Your task to perform on an android device: Open Google Image 0: 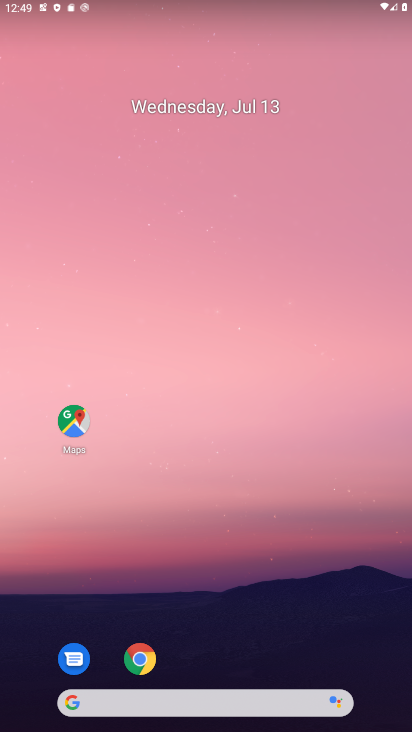
Step 0: drag from (274, 238) to (299, 136)
Your task to perform on an android device: Open Google Image 1: 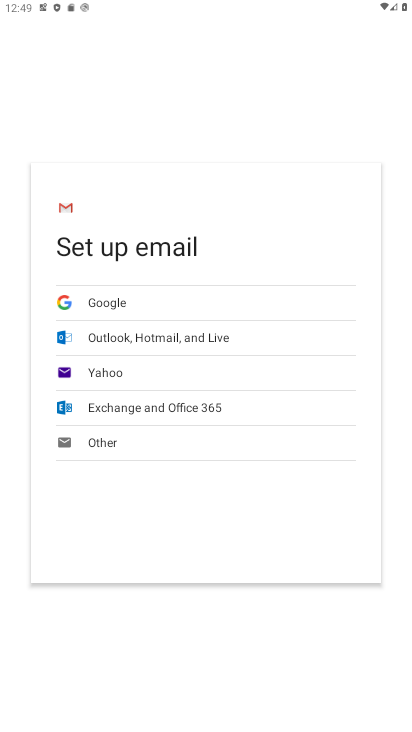
Step 1: press home button
Your task to perform on an android device: Open Google Image 2: 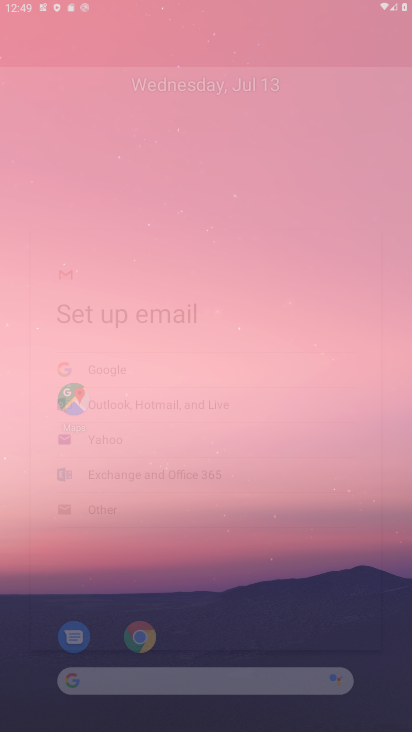
Step 2: drag from (203, 657) to (277, 144)
Your task to perform on an android device: Open Google Image 3: 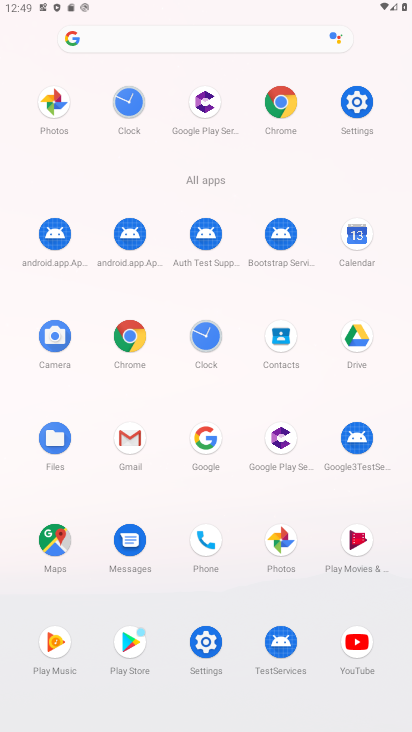
Step 3: click (202, 433)
Your task to perform on an android device: Open Google Image 4: 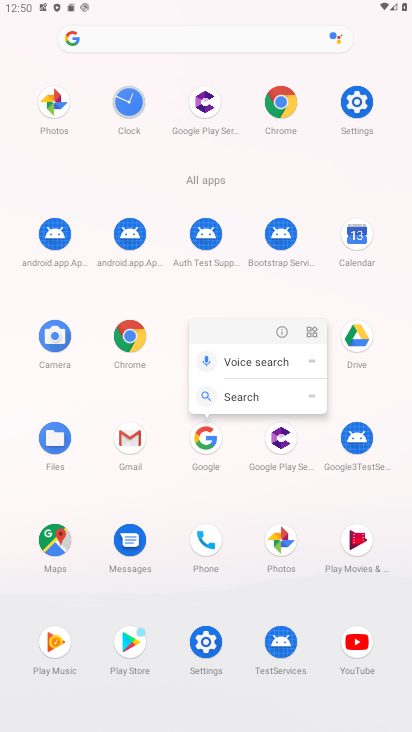
Step 4: click (283, 332)
Your task to perform on an android device: Open Google Image 5: 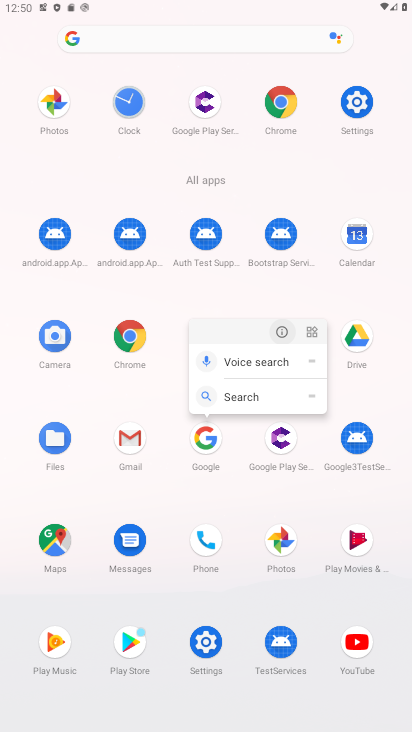
Step 5: click (283, 331)
Your task to perform on an android device: Open Google Image 6: 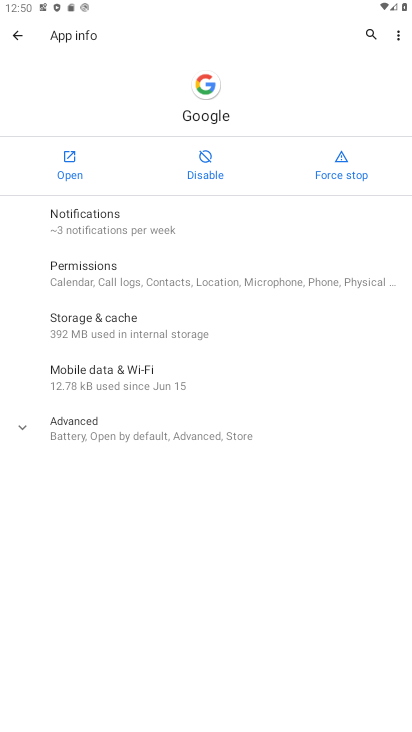
Step 6: click (78, 168)
Your task to perform on an android device: Open Google Image 7: 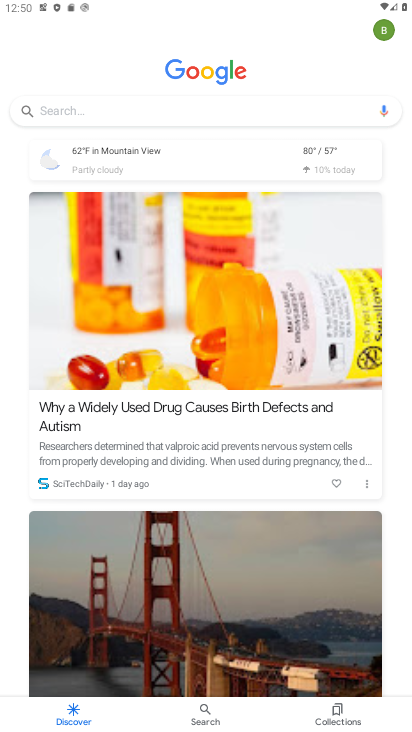
Step 7: task complete